Your task to perform on an android device: change alarm snooze length Image 0: 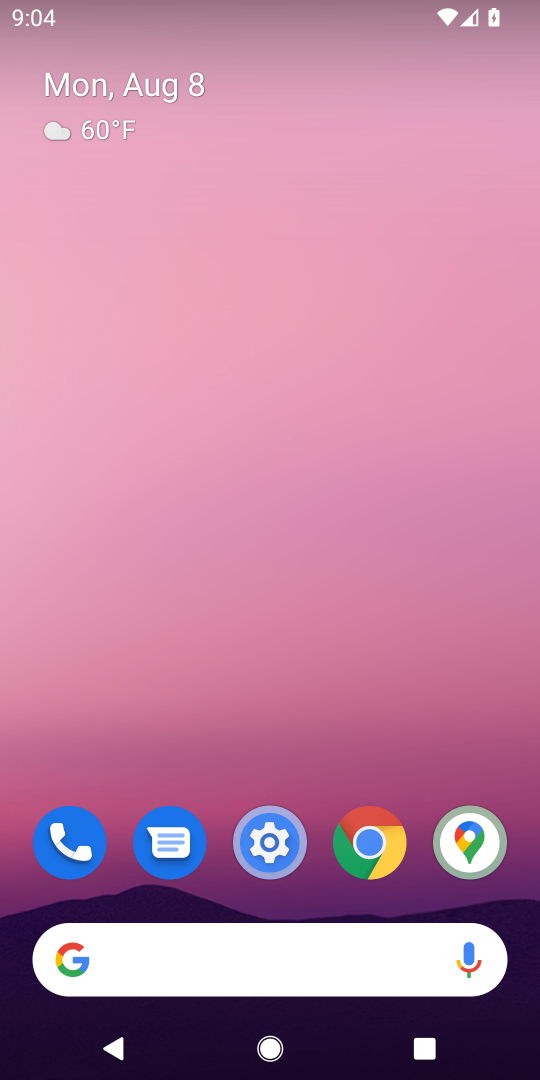
Step 0: drag from (387, 728) to (257, 165)
Your task to perform on an android device: change alarm snooze length Image 1: 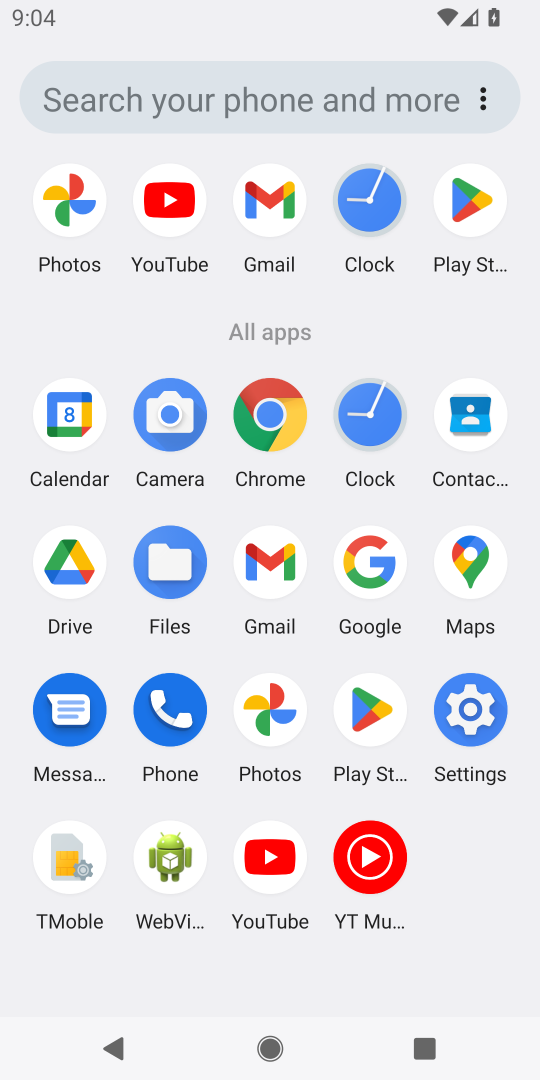
Step 1: click (382, 196)
Your task to perform on an android device: change alarm snooze length Image 2: 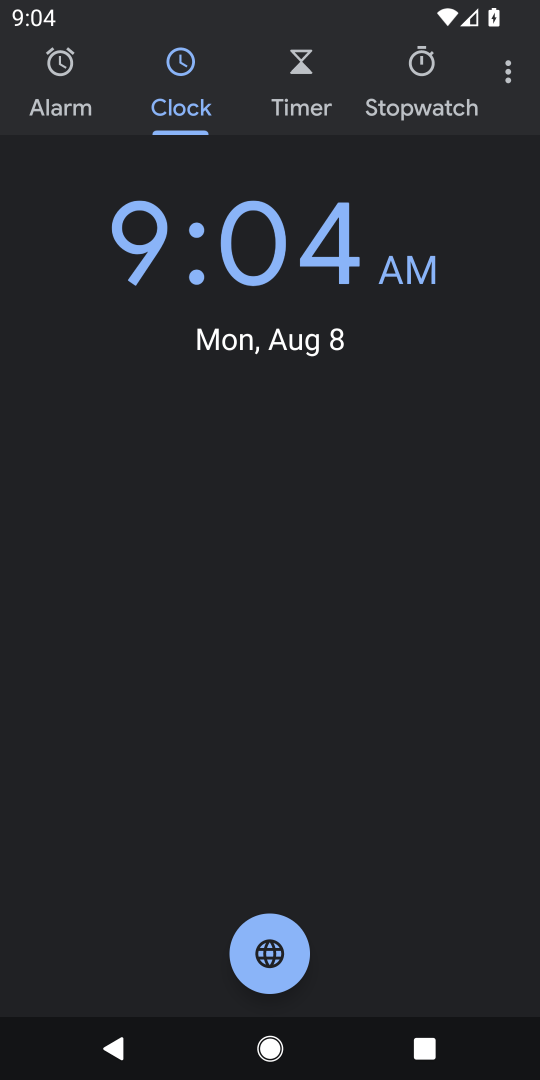
Step 2: click (515, 93)
Your task to perform on an android device: change alarm snooze length Image 3: 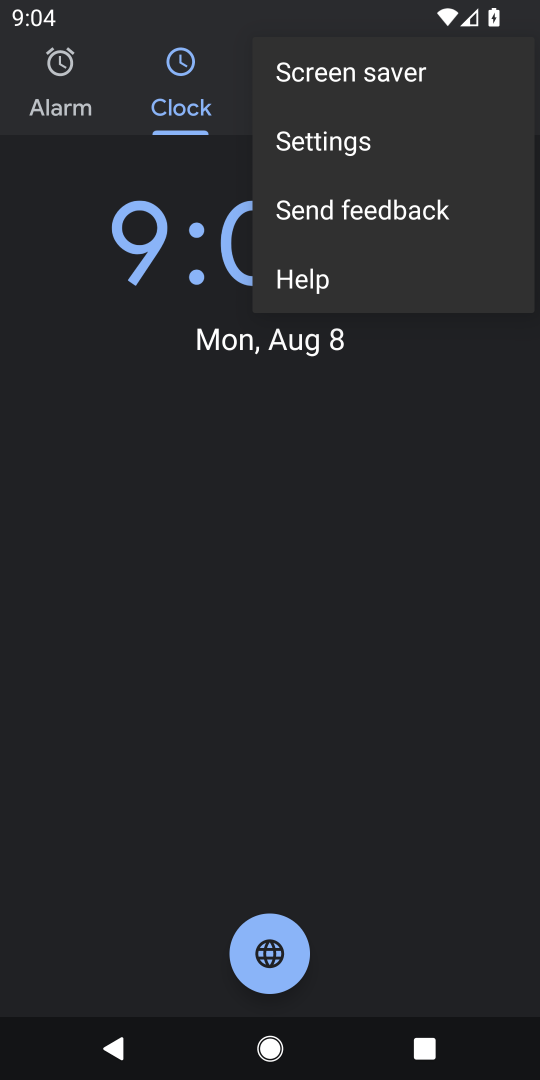
Step 3: click (379, 152)
Your task to perform on an android device: change alarm snooze length Image 4: 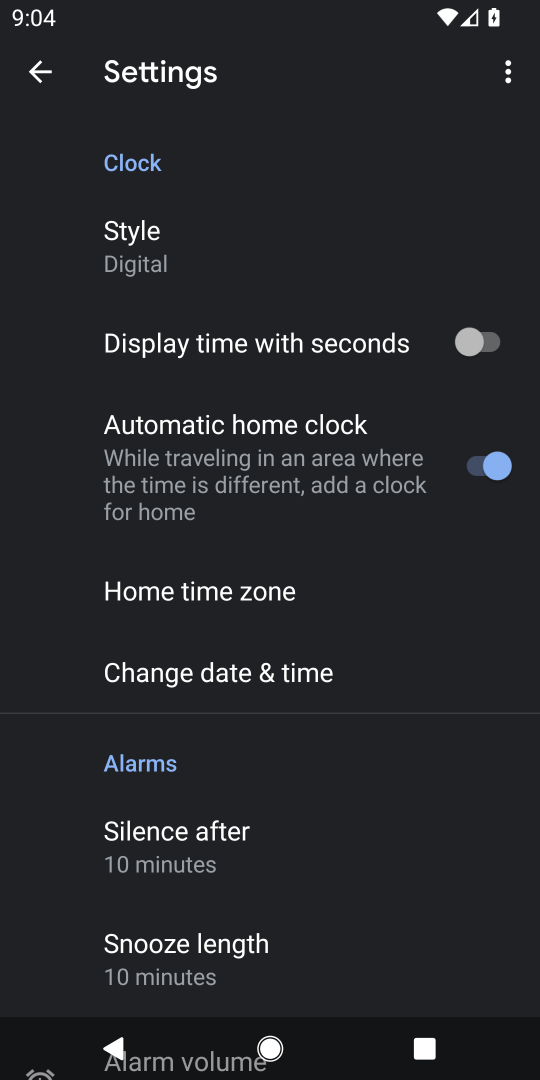
Step 4: click (233, 938)
Your task to perform on an android device: change alarm snooze length Image 5: 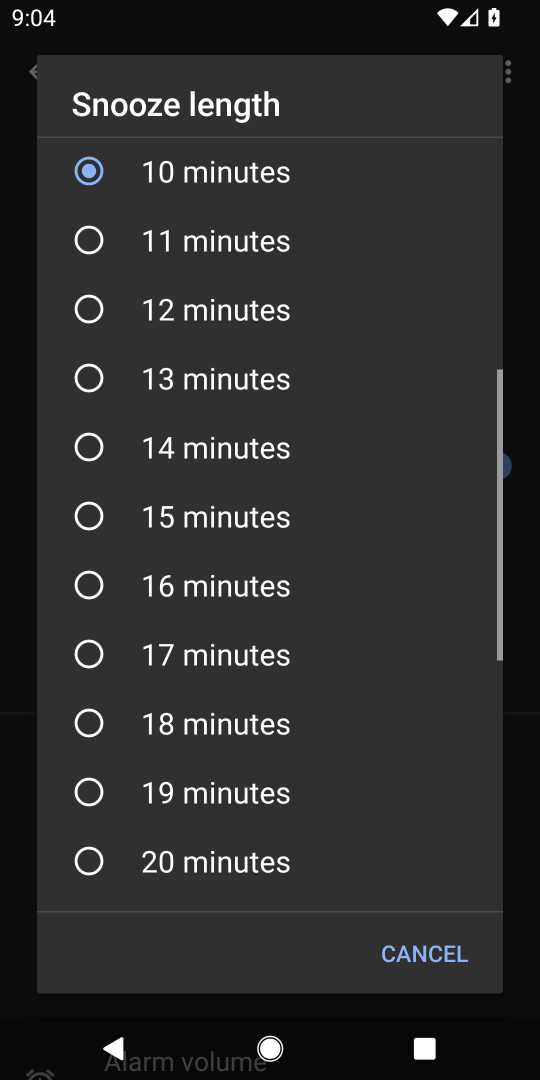
Step 5: click (362, 496)
Your task to perform on an android device: change alarm snooze length Image 6: 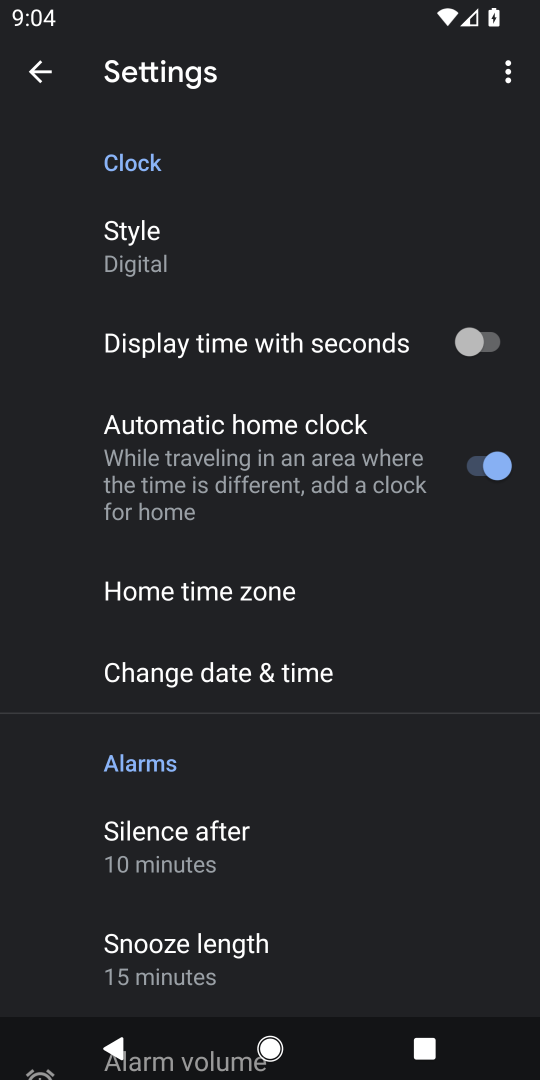
Step 6: task complete